Your task to perform on an android device: add a label to a message in the gmail app Image 0: 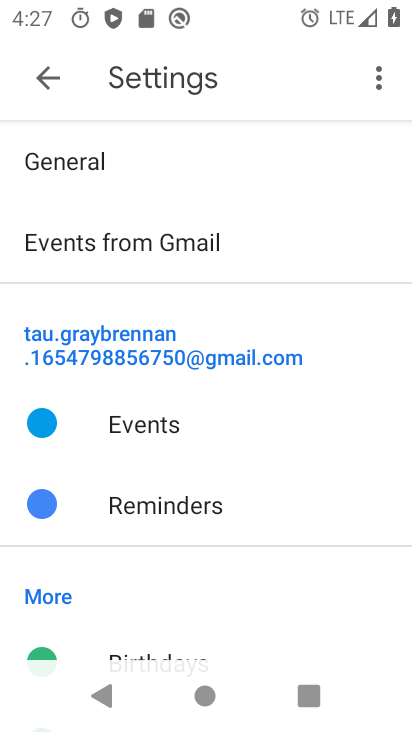
Step 0: press home button
Your task to perform on an android device: add a label to a message in the gmail app Image 1: 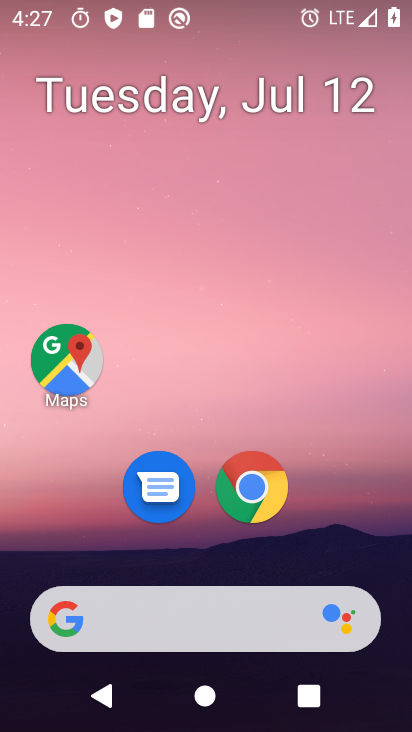
Step 1: drag from (179, 503) to (50, 24)
Your task to perform on an android device: add a label to a message in the gmail app Image 2: 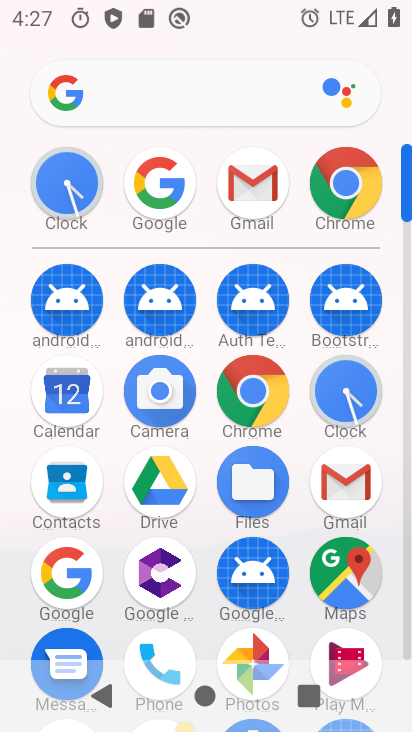
Step 2: click (355, 492)
Your task to perform on an android device: add a label to a message in the gmail app Image 3: 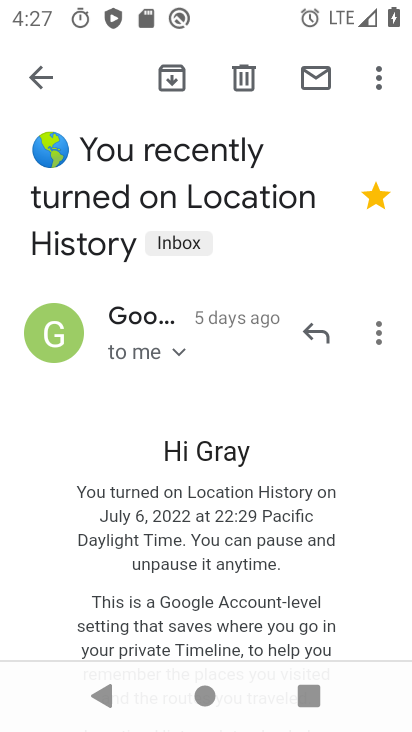
Step 3: click (379, 70)
Your task to perform on an android device: add a label to a message in the gmail app Image 4: 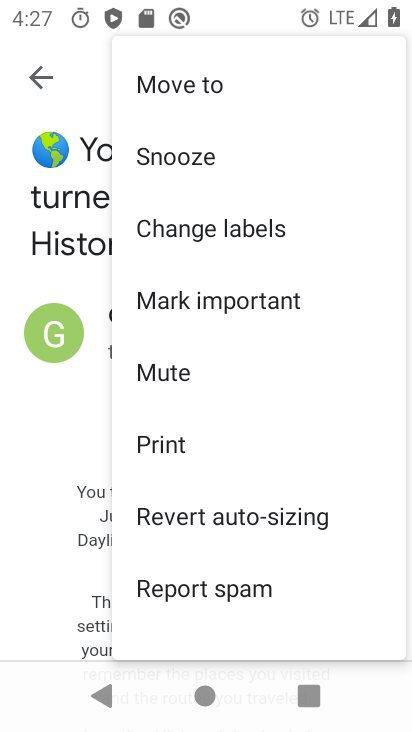
Step 4: click (243, 243)
Your task to perform on an android device: add a label to a message in the gmail app Image 5: 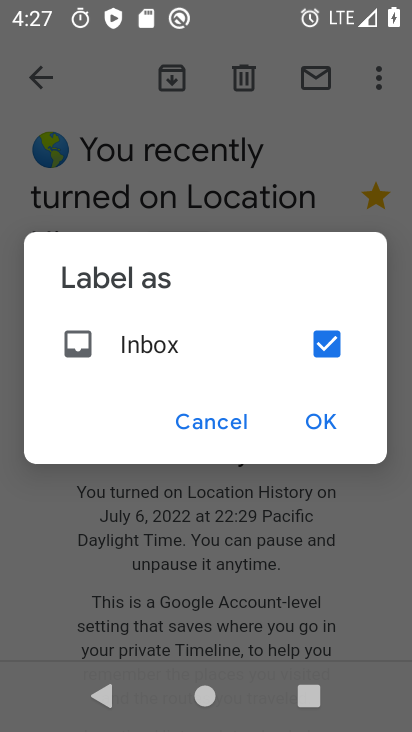
Step 5: task complete